Your task to perform on an android device: open sync settings in chrome Image 0: 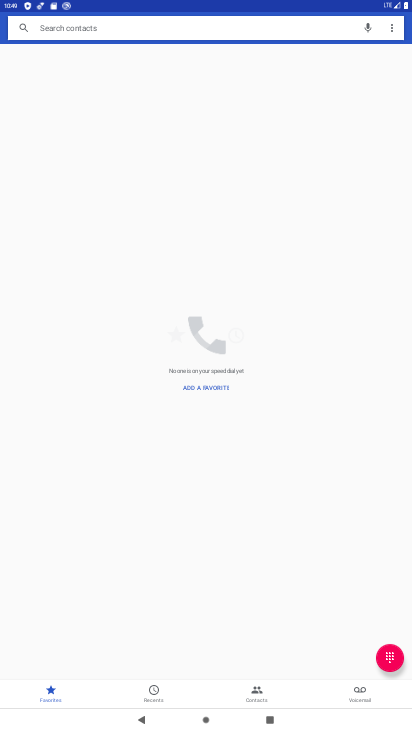
Step 0: press home button
Your task to perform on an android device: open sync settings in chrome Image 1: 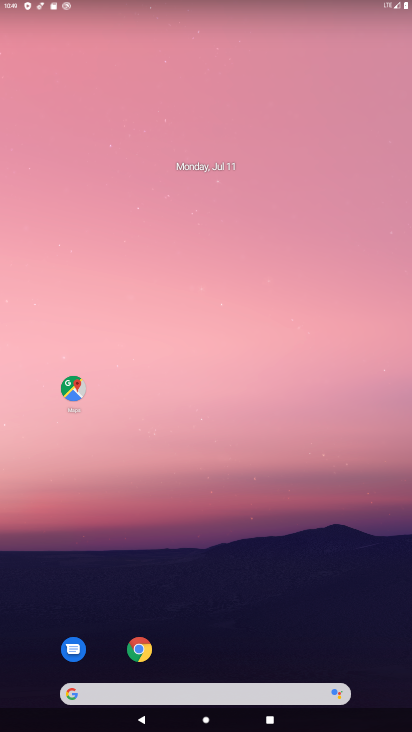
Step 1: click (135, 647)
Your task to perform on an android device: open sync settings in chrome Image 2: 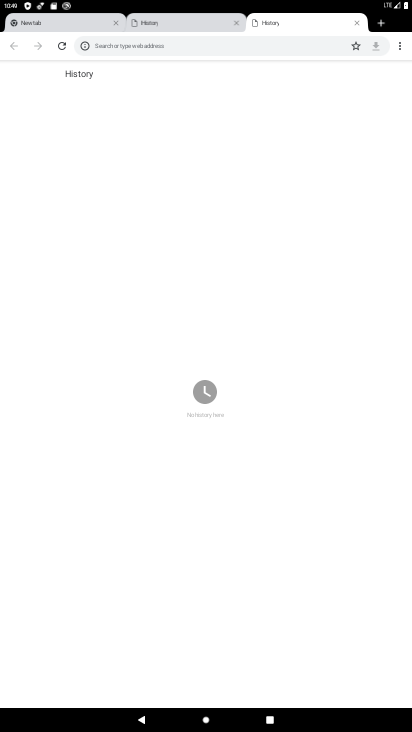
Step 2: click (400, 41)
Your task to perform on an android device: open sync settings in chrome Image 3: 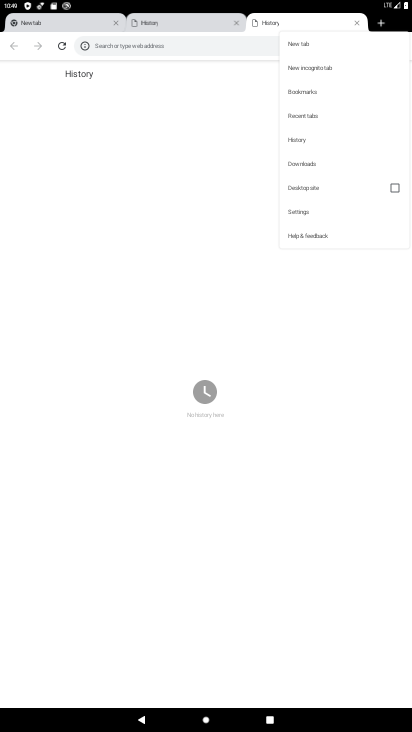
Step 3: click (309, 211)
Your task to perform on an android device: open sync settings in chrome Image 4: 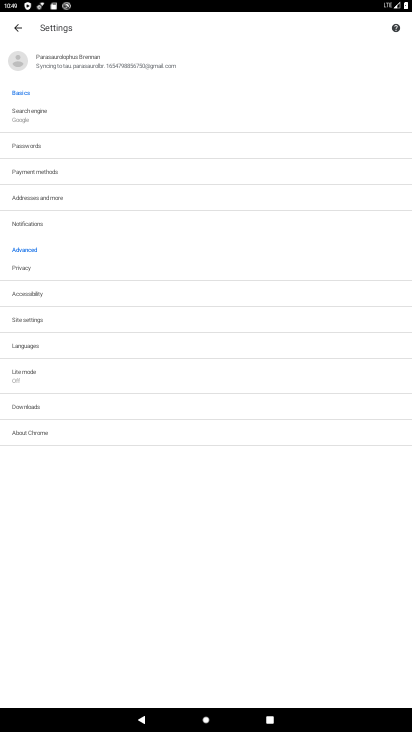
Step 4: click (71, 52)
Your task to perform on an android device: open sync settings in chrome Image 5: 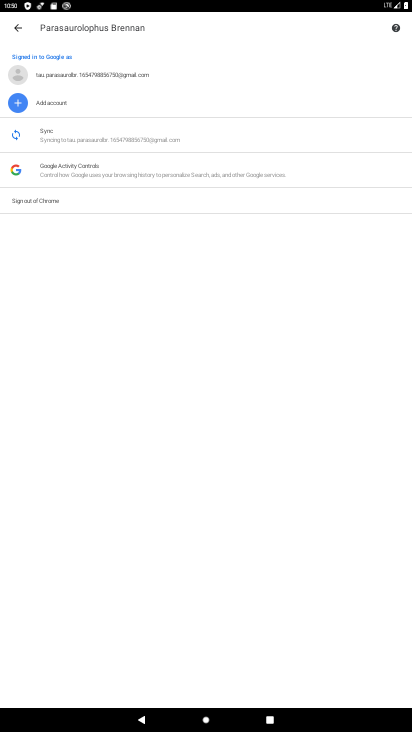
Step 5: click (124, 131)
Your task to perform on an android device: open sync settings in chrome Image 6: 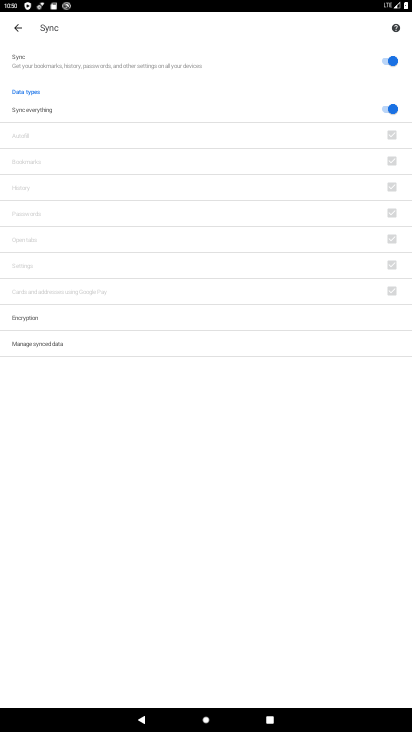
Step 6: task complete